Your task to perform on an android device: Toggle the flashlight Image 0: 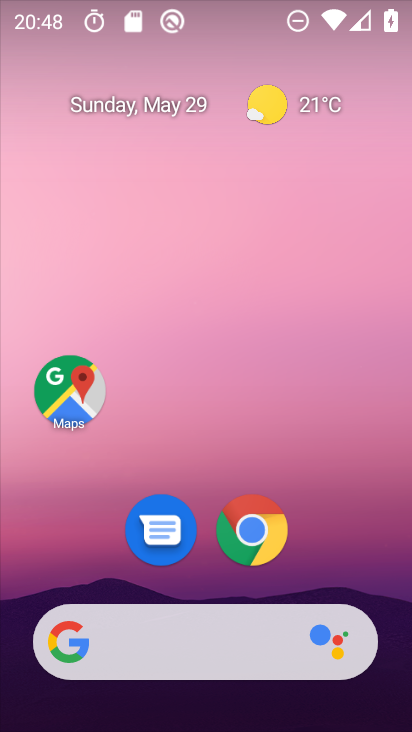
Step 0: drag from (233, 676) to (356, 6)
Your task to perform on an android device: Toggle the flashlight Image 1: 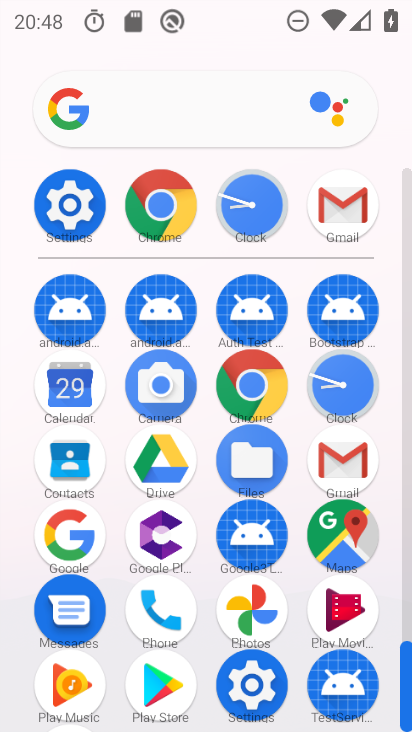
Step 1: click (64, 222)
Your task to perform on an android device: Toggle the flashlight Image 2: 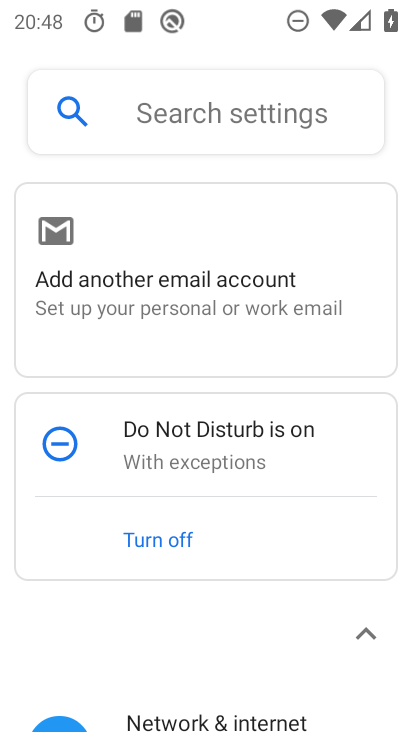
Step 2: click (184, 125)
Your task to perform on an android device: Toggle the flashlight Image 3: 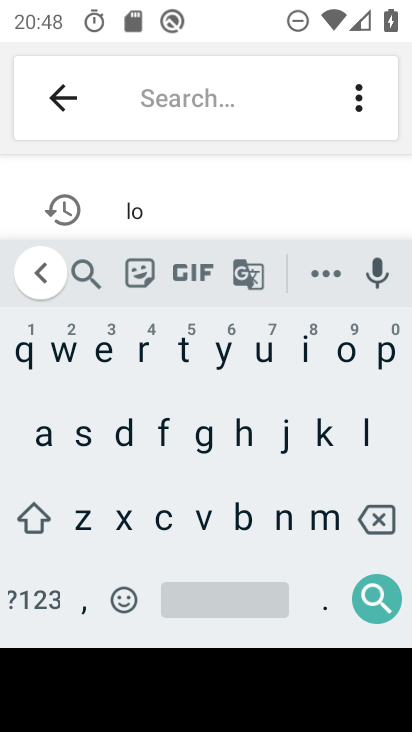
Step 3: click (170, 430)
Your task to perform on an android device: Toggle the flashlight Image 4: 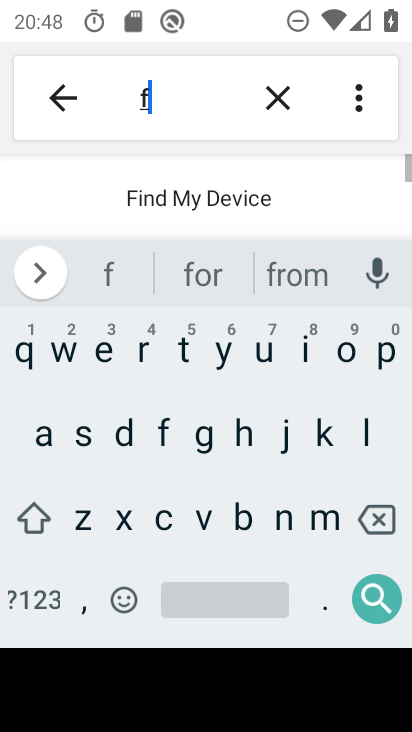
Step 4: click (366, 429)
Your task to perform on an android device: Toggle the flashlight Image 5: 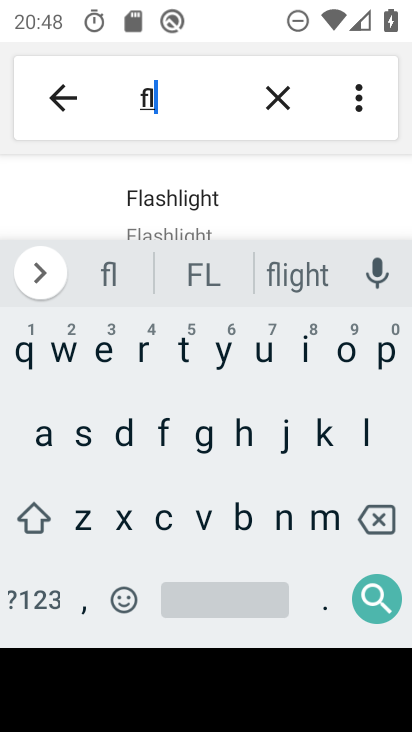
Step 5: click (178, 217)
Your task to perform on an android device: Toggle the flashlight Image 6: 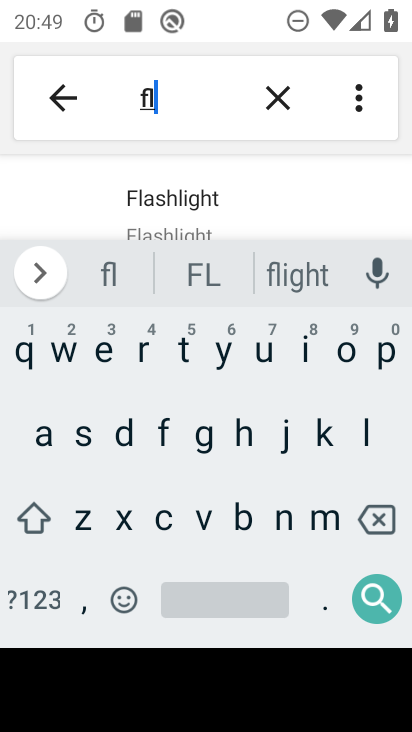
Step 6: task complete